Your task to perform on an android device: Go to wifi settings Image 0: 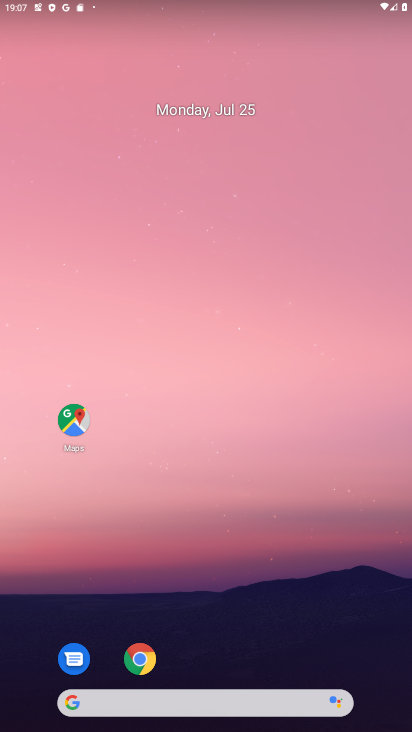
Step 0: drag from (199, 643) to (180, 7)
Your task to perform on an android device: Go to wifi settings Image 1: 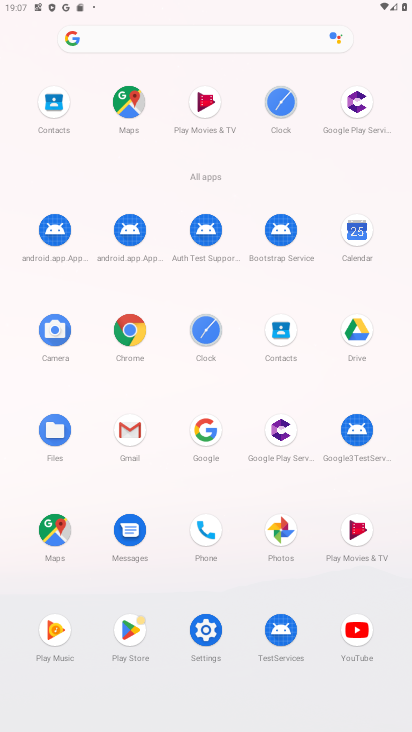
Step 1: click (201, 631)
Your task to perform on an android device: Go to wifi settings Image 2: 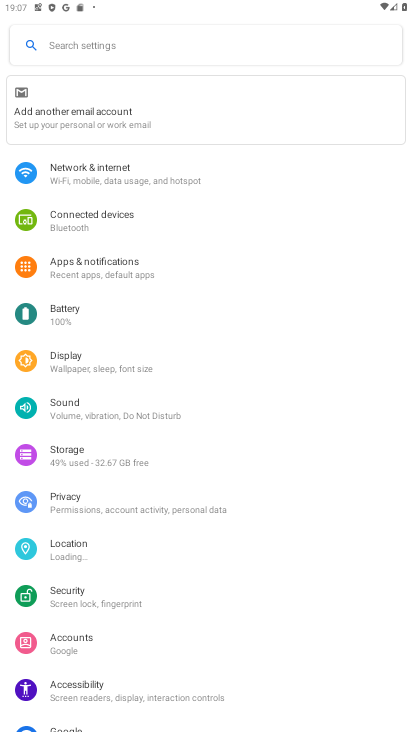
Step 2: click (89, 186)
Your task to perform on an android device: Go to wifi settings Image 3: 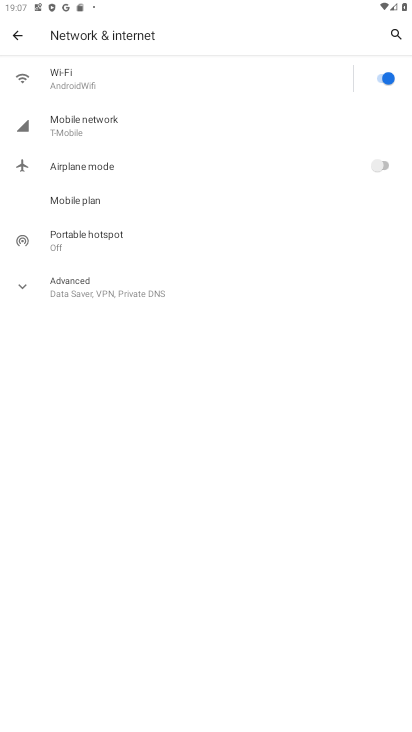
Step 3: click (142, 79)
Your task to perform on an android device: Go to wifi settings Image 4: 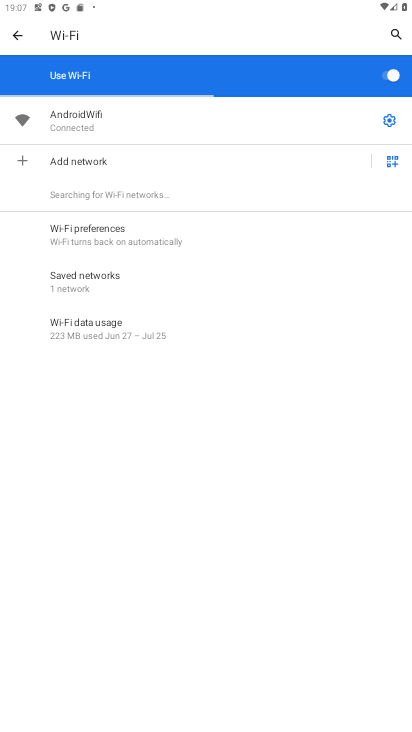
Step 4: task complete